Your task to perform on an android device: Set the phone to "Do not disturb". Image 0: 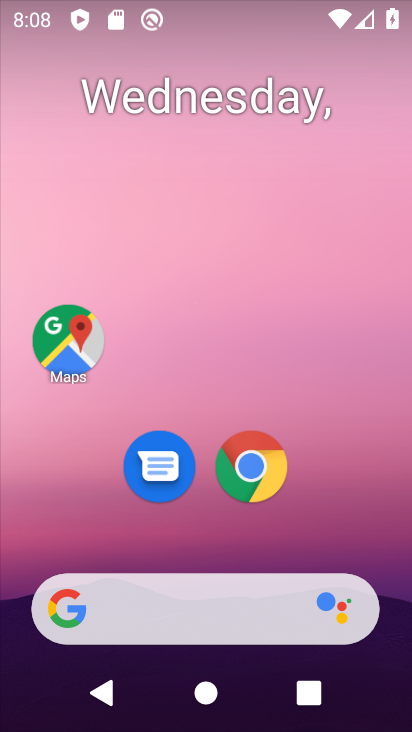
Step 0: drag from (191, 548) to (191, 136)
Your task to perform on an android device: Set the phone to "Do not disturb". Image 1: 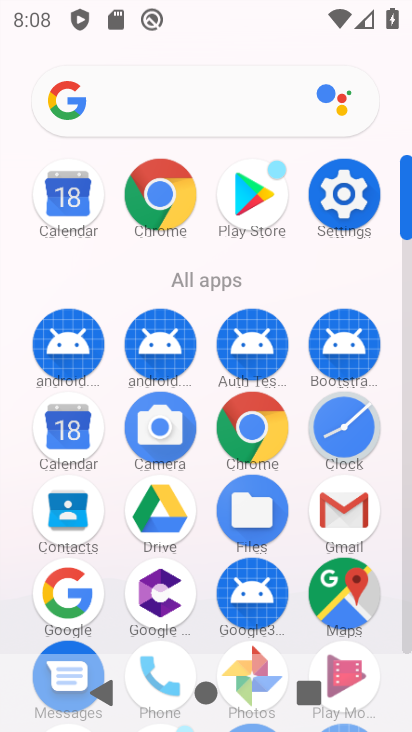
Step 1: click (342, 205)
Your task to perform on an android device: Set the phone to "Do not disturb". Image 2: 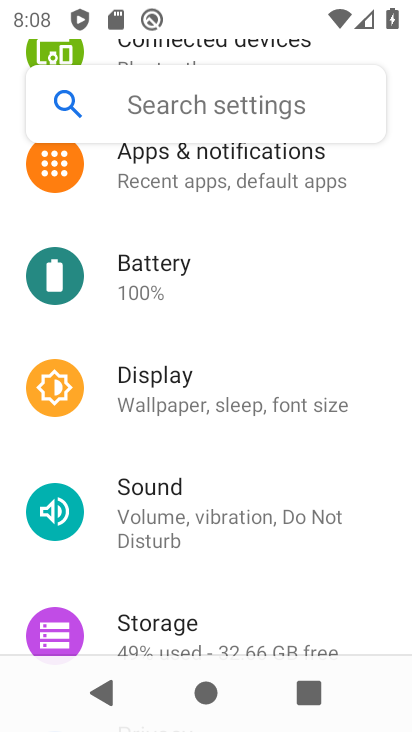
Step 2: click (186, 523)
Your task to perform on an android device: Set the phone to "Do not disturb". Image 3: 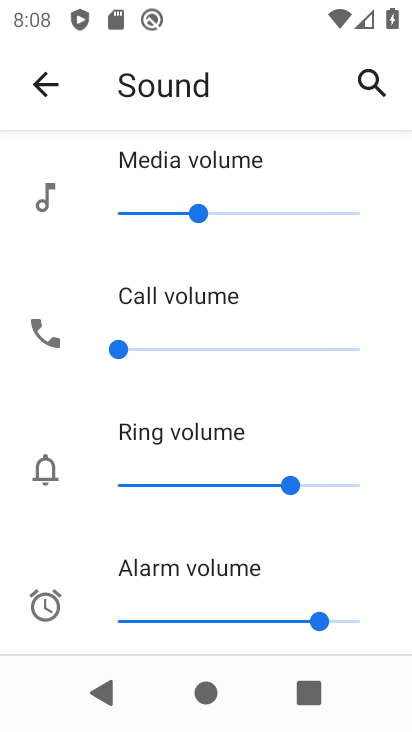
Step 3: drag from (182, 557) to (226, 264)
Your task to perform on an android device: Set the phone to "Do not disturb". Image 4: 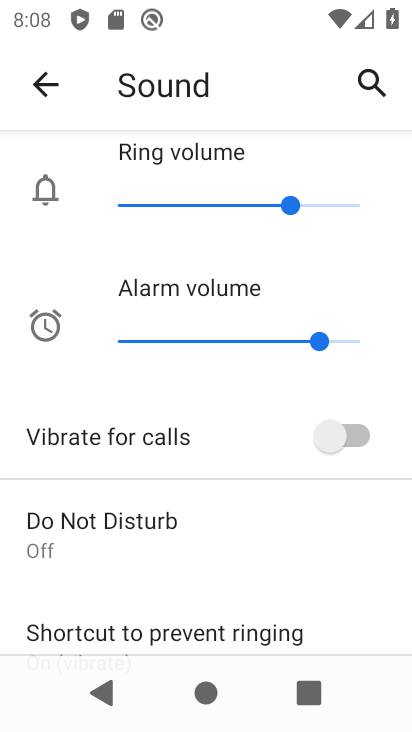
Step 4: click (129, 543)
Your task to perform on an android device: Set the phone to "Do not disturb". Image 5: 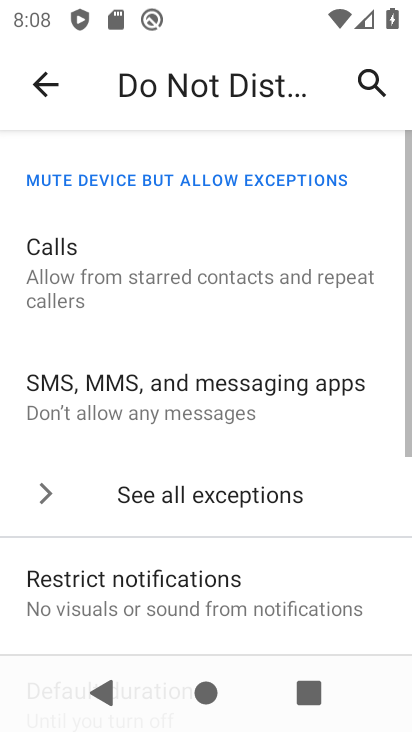
Step 5: drag from (94, 569) to (147, 230)
Your task to perform on an android device: Set the phone to "Do not disturb". Image 6: 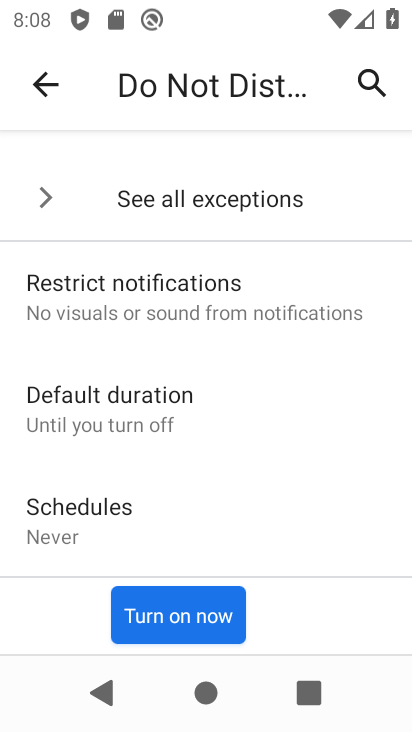
Step 6: click (161, 621)
Your task to perform on an android device: Set the phone to "Do not disturb". Image 7: 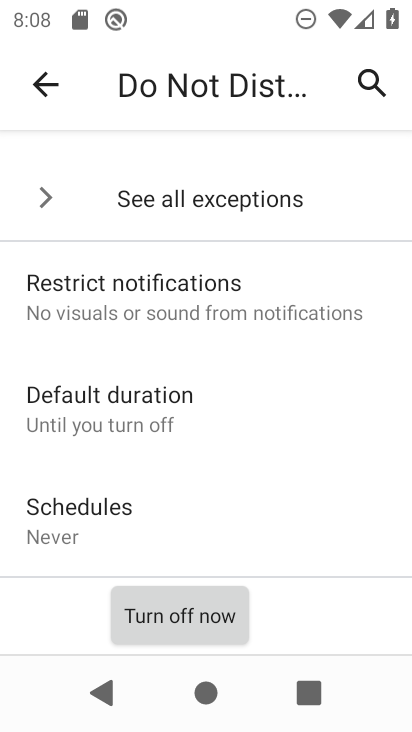
Step 7: task complete